Your task to perform on an android device: Open Google Maps Image 0: 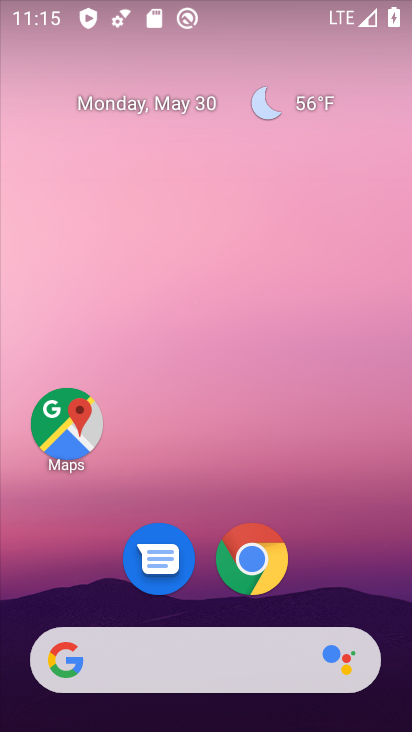
Step 0: click (82, 418)
Your task to perform on an android device: Open Google Maps Image 1: 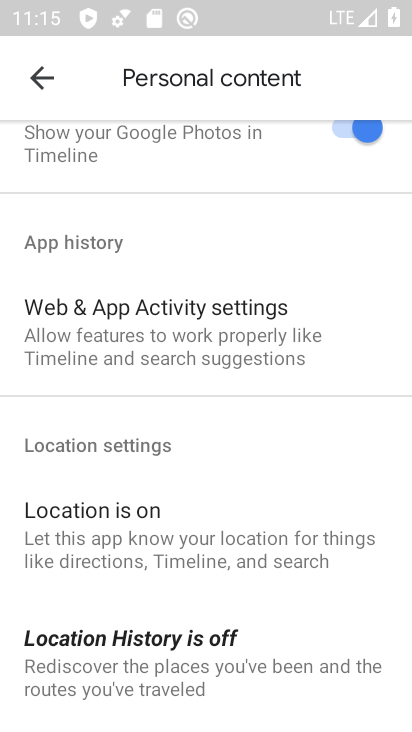
Step 1: click (40, 88)
Your task to perform on an android device: Open Google Maps Image 2: 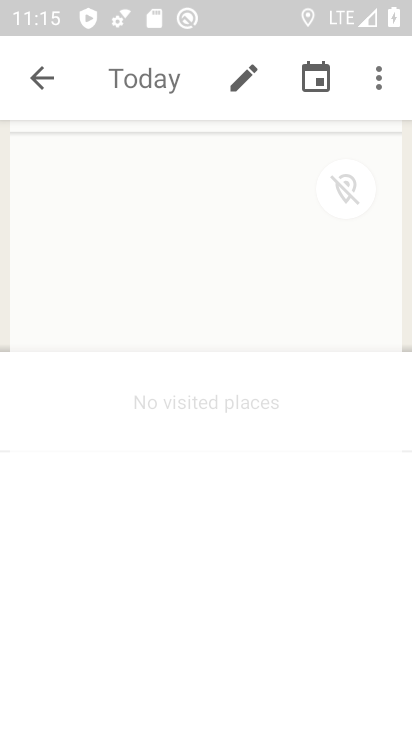
Step 2: click (40, 88)
Your task to perform on an android device: Open Google Maps Image 3: 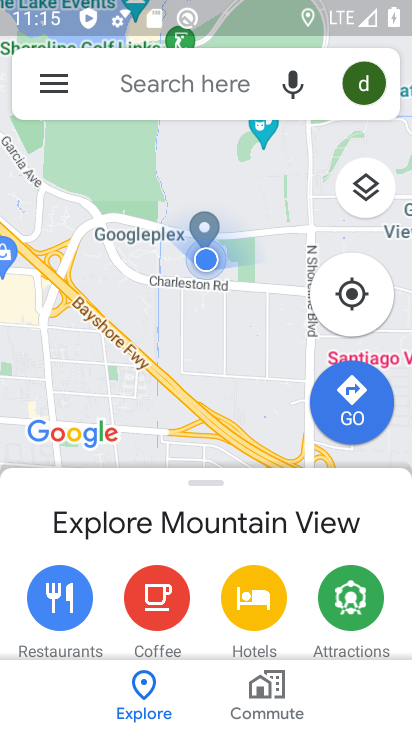
Step 3: task complete